Your task to perform on an android device: Go to Amazon Image 0: 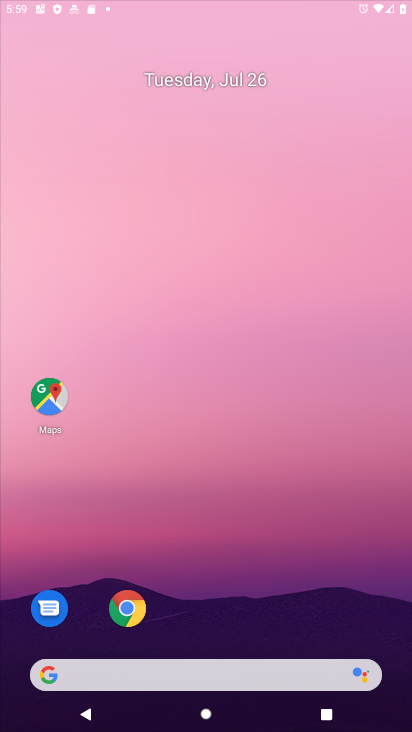
Step 0: press home button
Your task to perform on an android device: Go to Amazon Image 1: 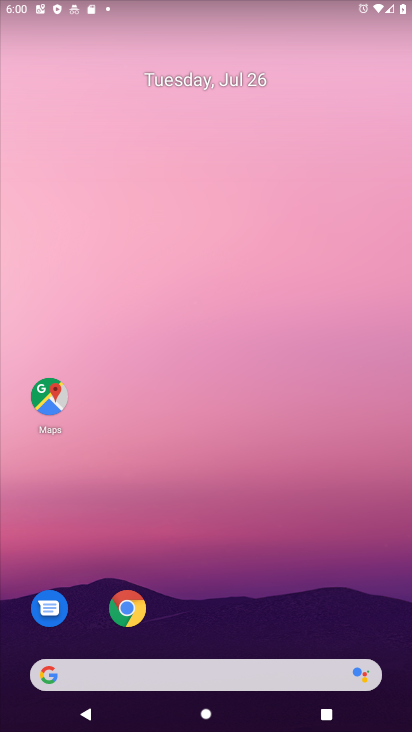
Step 1: click (49, 676)
Your task to perform on an android device: Go to Amazon Image 2: 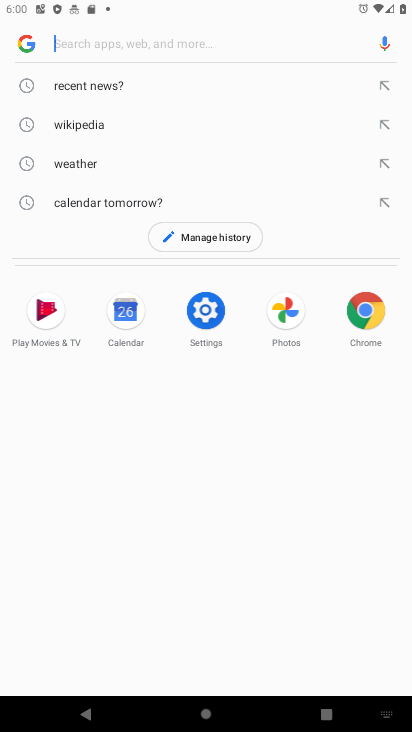
Step 2: type "Amazon"
Your task to perform on an android device: Go to Amazon Image 3: 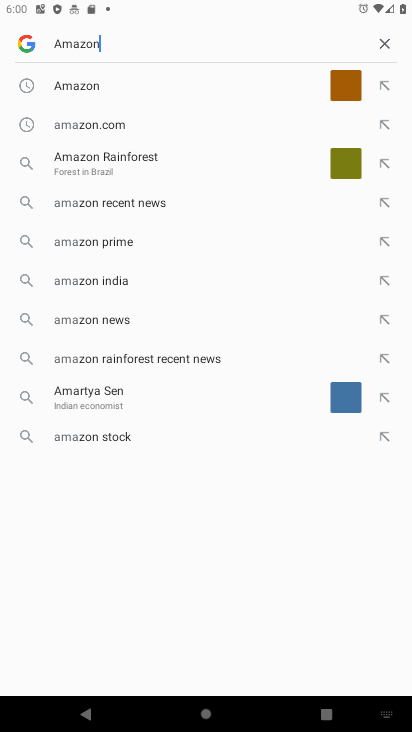
Step 3: press enter
Your task to perform on an android device: Go to Amazon Image 4: 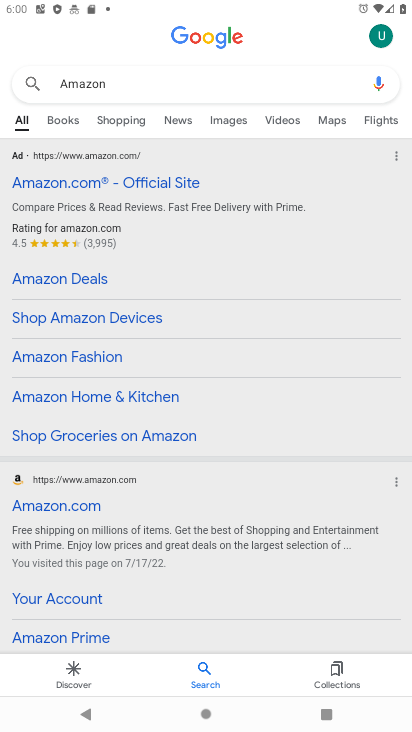
Step 4: click (30, 176)
Your task to perform on an android device: Go to Amazon Image 5: 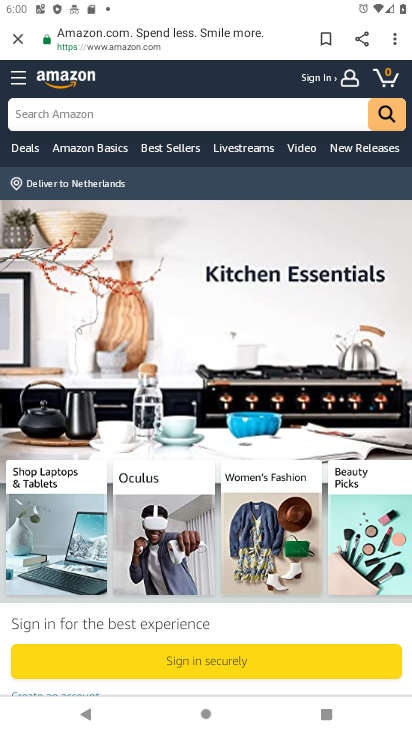
Step 5: task complete